Your task to perform on an android device: Open maps Image 0: 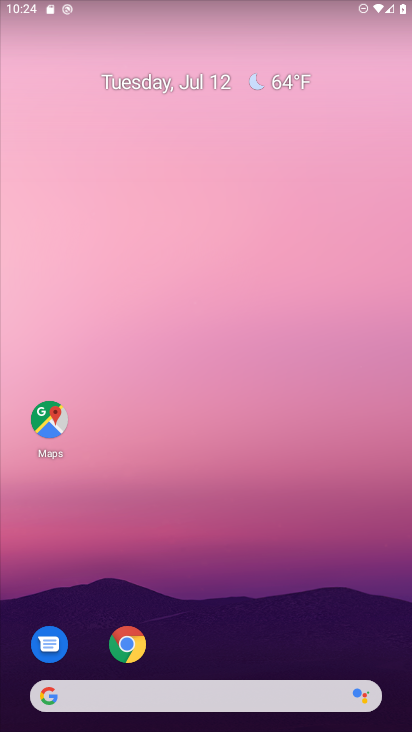
Step 0: drag from (275, 645) to (329, 210)
Your task to perform on an android device: Open maps Image 1: 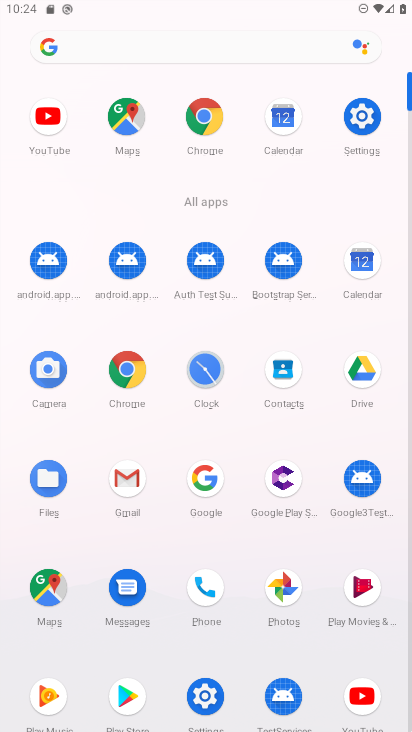
Step 1: click (136, 134)
Your task to perform on an android device: Open maps Image 2: 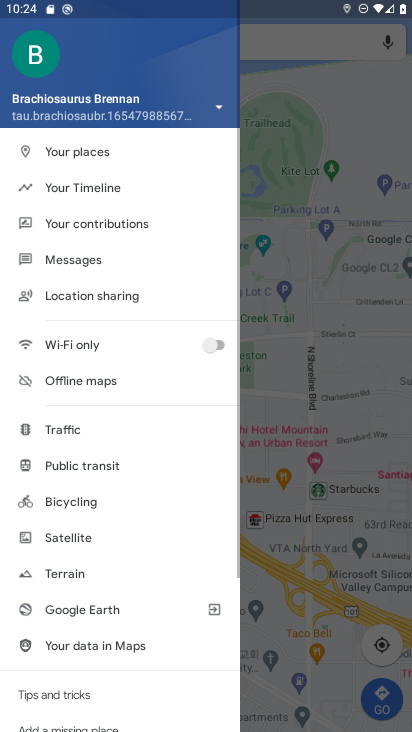
Step 2: click (263, 284)
Your task to perform on an android device: Open maps Image 3: 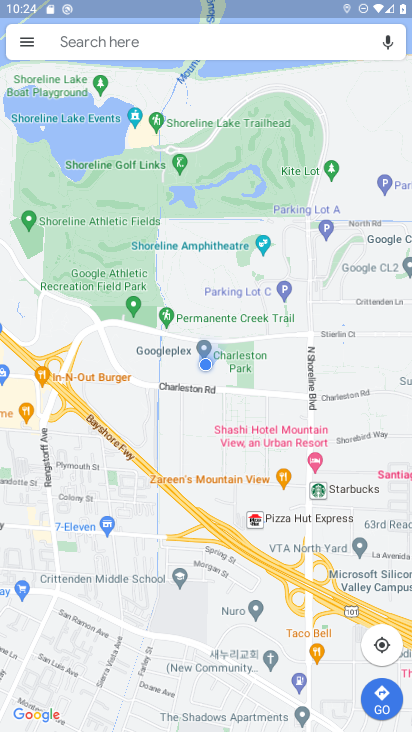
Step 3: task complete